Your task to perform on an android device: Open settings on Google Maps Image 0: 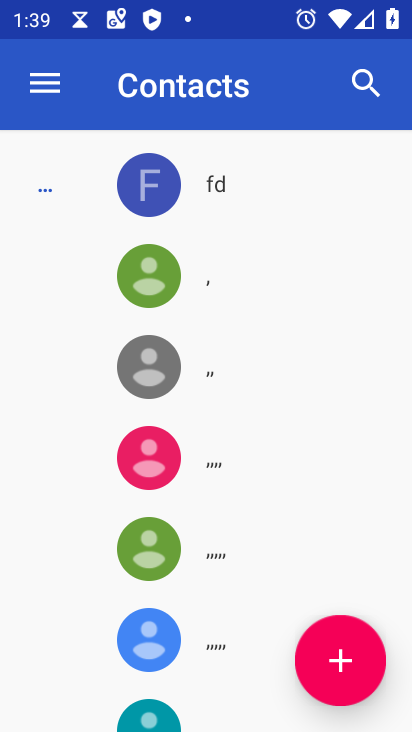
Step 0: press home button
Your task to perform on an android device: Open settings on Google Maps Image 1: 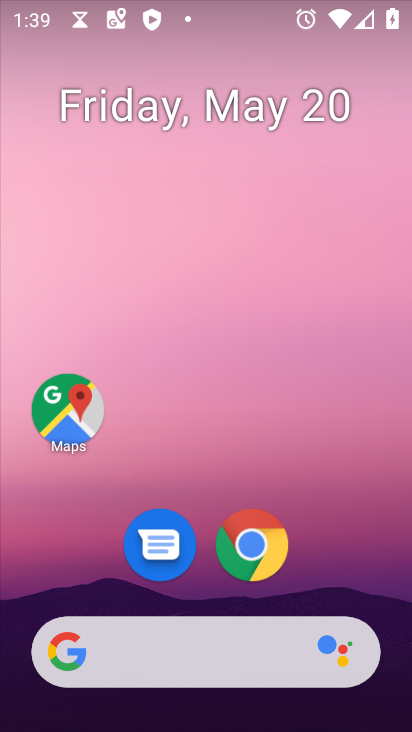
Step 1: click (74, 416)
Your task to perform on an android device: Open settings on Google Maps Image 2: 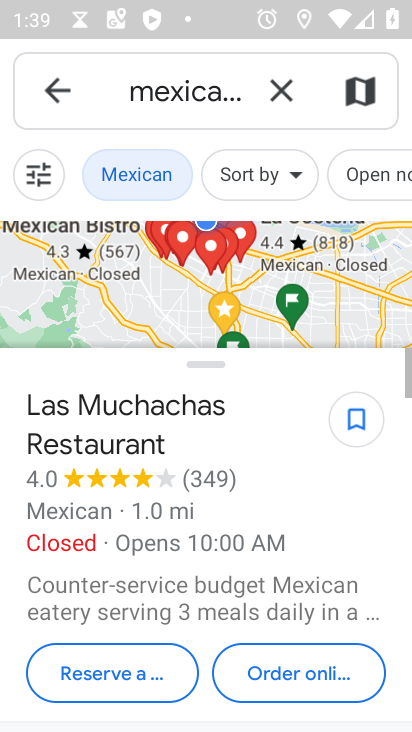
Step 2: click (53, 84)
Your task to perform on an android device: Open settings on Google Maps Image 3: 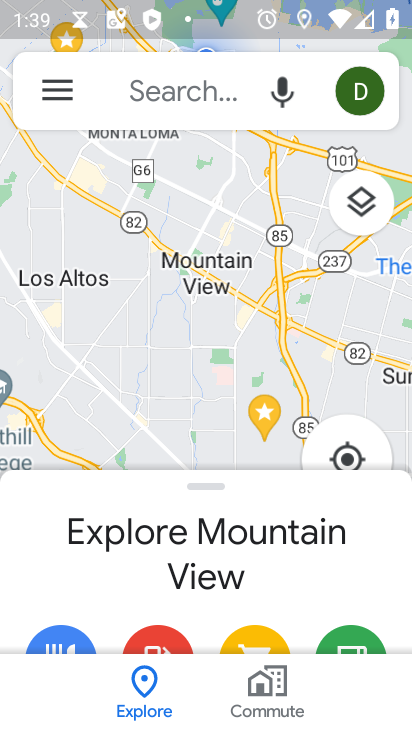
Step 3: click (71, 84)
Your task to perform on an android device: Open settings on Google Maps Image 4: 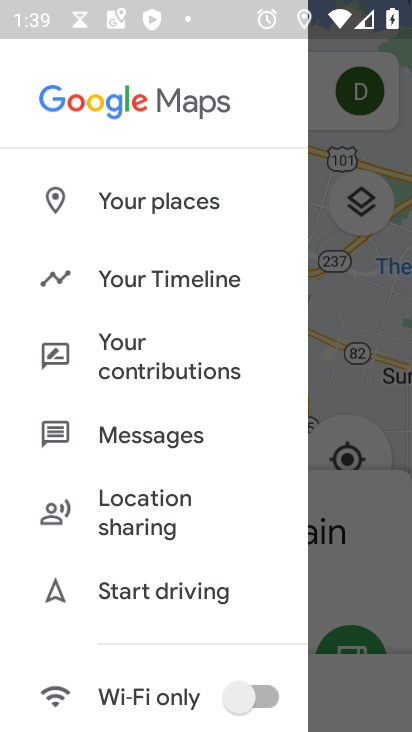
Step 4: drag from (189, 618) to (182, 303)
Your task to perform on an android device: Open settings on Google Maps Image 5: 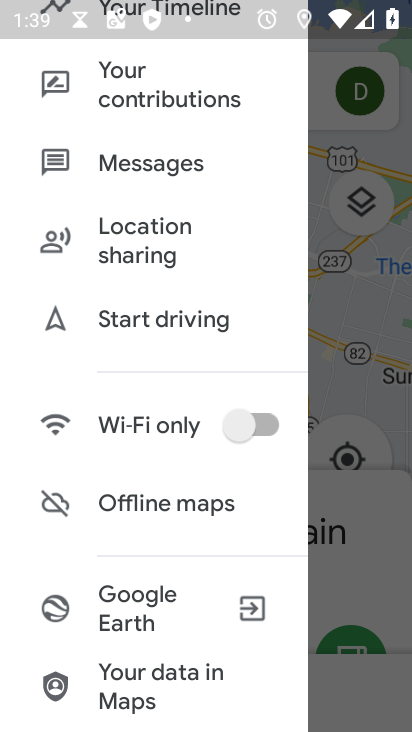
Step 5: drag from (179, 605) to (131, 298)
Your task to perform on an android device: Open settings on Google Maps Image 6: 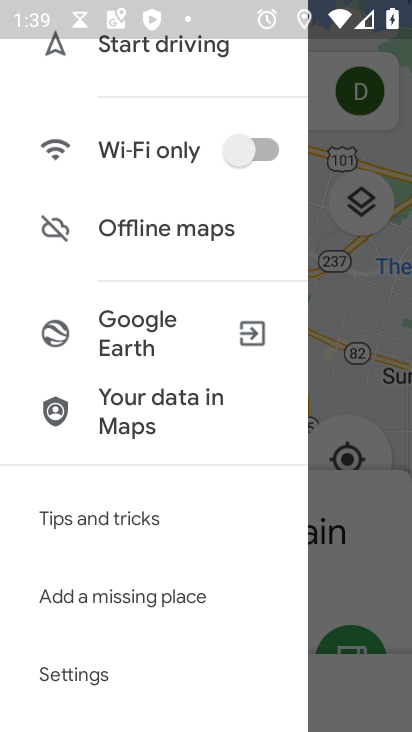
Step 6: click (90, 681)
Your task to perform on an android device: Open settings on Google Maps Image 7: 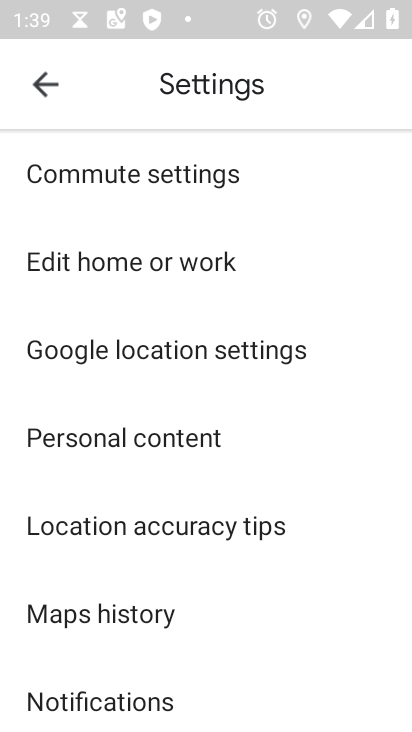
Step 7: task complete